Your task to perform on an android device: toggle location history Image 0: 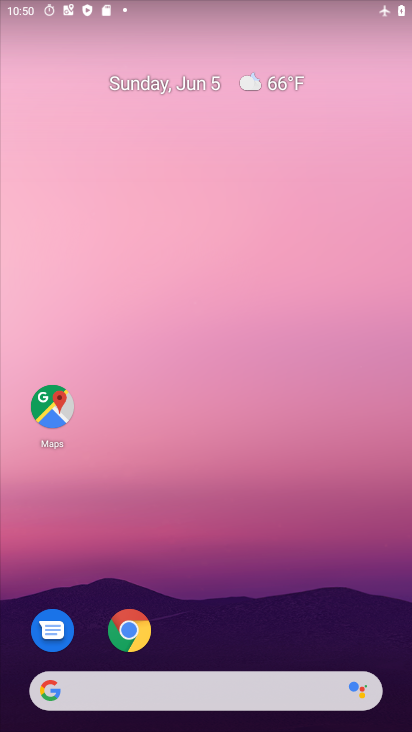
Step 0: drag from (242, 719) to (244, 17)
Your task to perform on an android device: toggle location history Image 1: 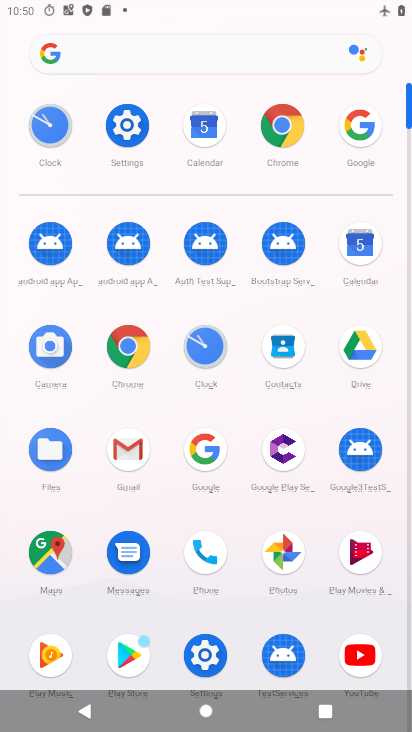
Step 1: click (129, 125)
Your task to perform on an android device: toggle location history Image 2: 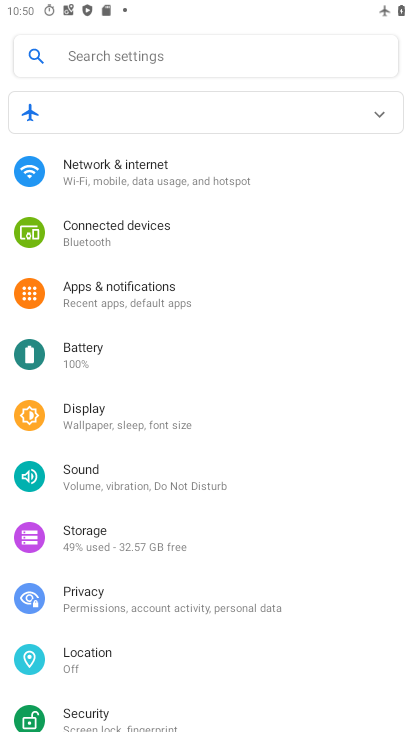
Step 2: click (81, 655)
Your task to perform on an android device: toggle location history Image 3: 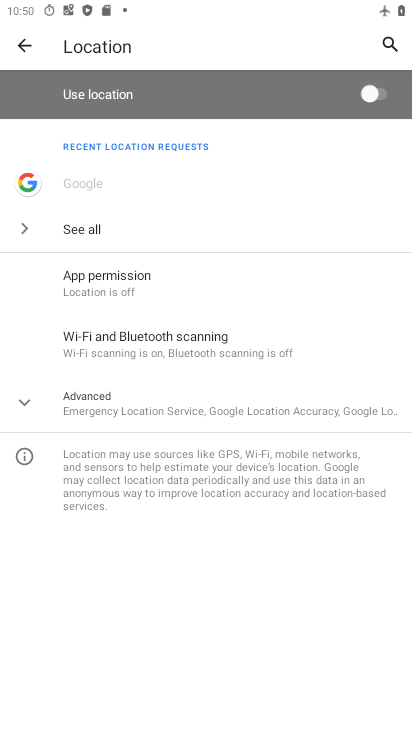
Step 3: click (94, 406)
Your task to perform on an android device: toggle location history Image 4: 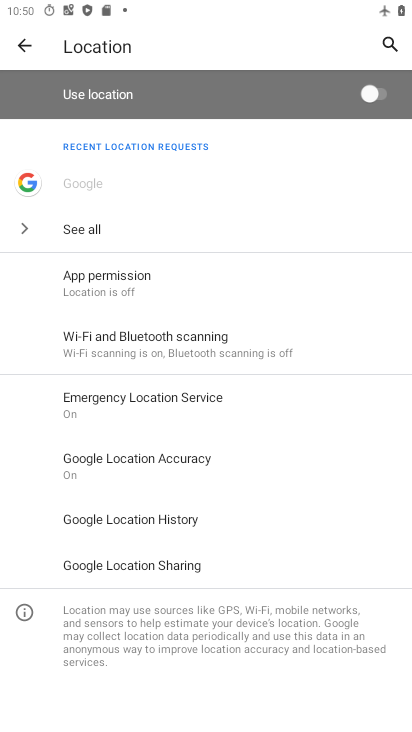
Step 4: click (124, 518)
Your task to perform on an android device: toggle location history Image 5: 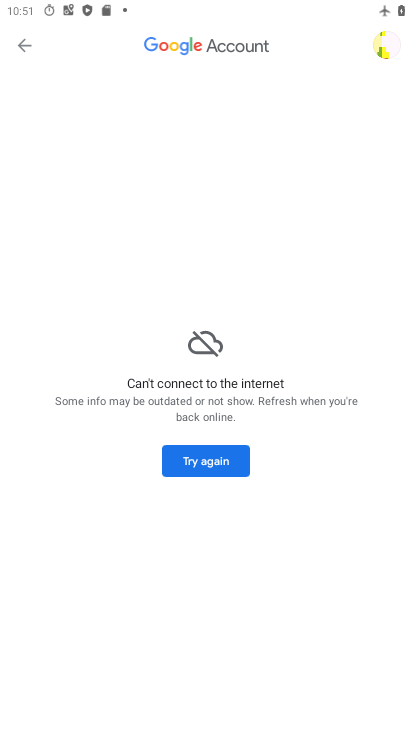
Step 5: task complete